Your task to perform on an android device: change the clock style Image 0: 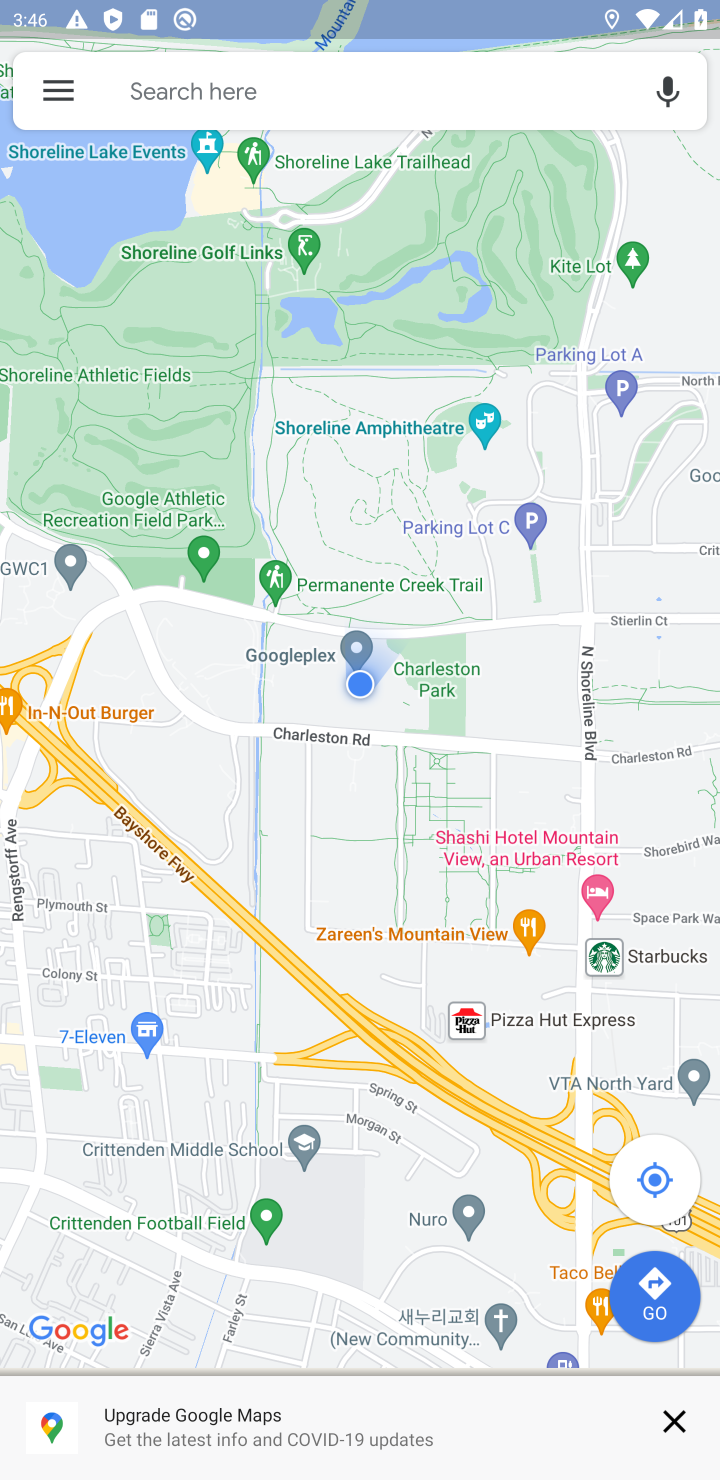
Step 0: press home button
Your task to perform on an android device: change the clock style Image 1: 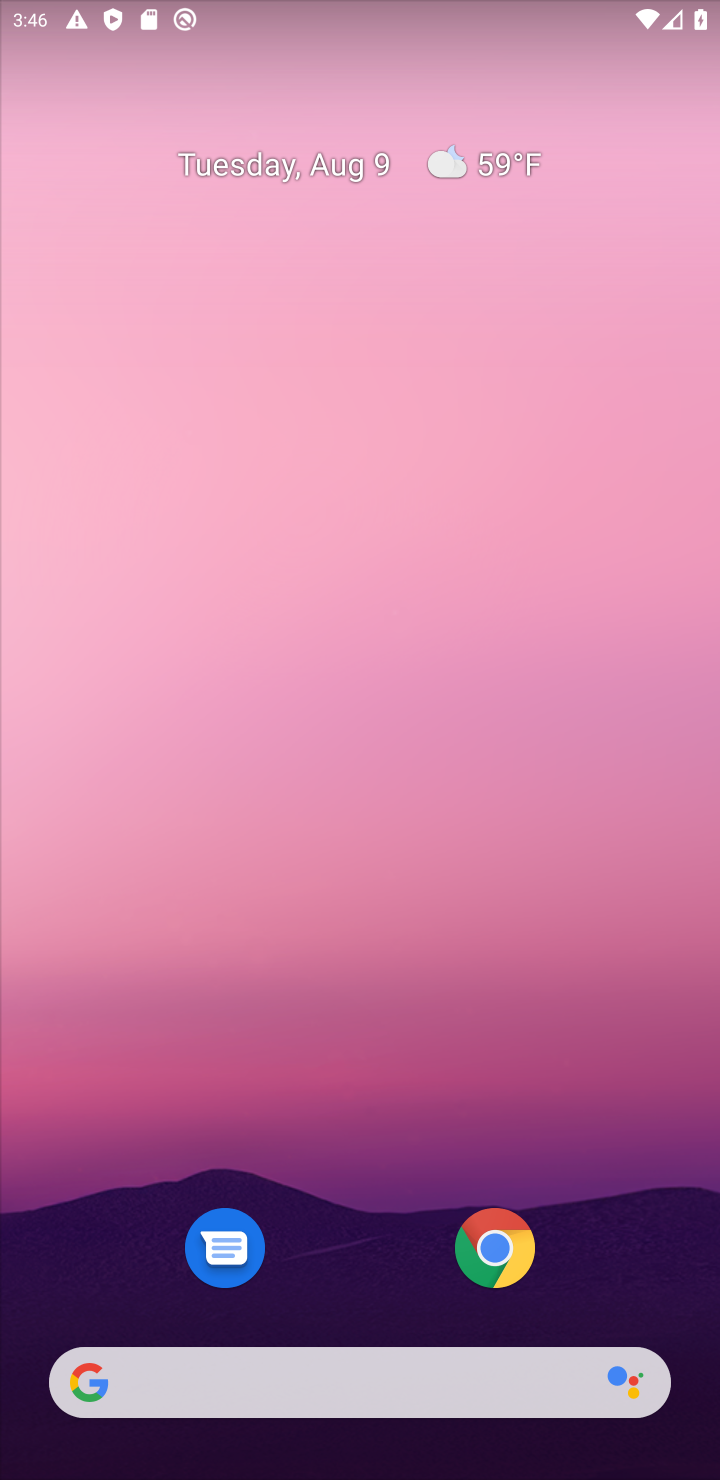
Step 1: drag from (375, 1110) to (200, 225)
Your task to perform on an android device: change the clock style Image 2: 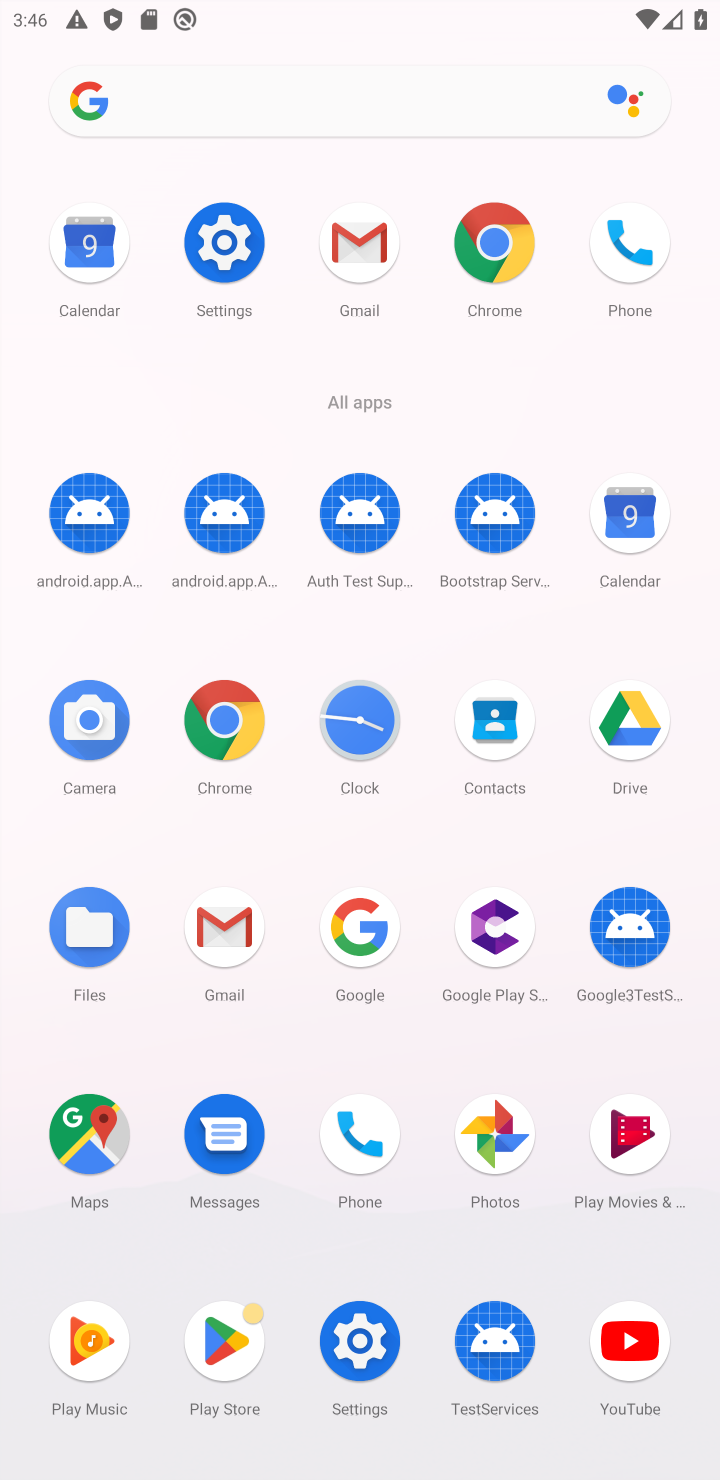
Step 2: click (364, 700)
Your task to perform on an android device: change the clock style Image 3: 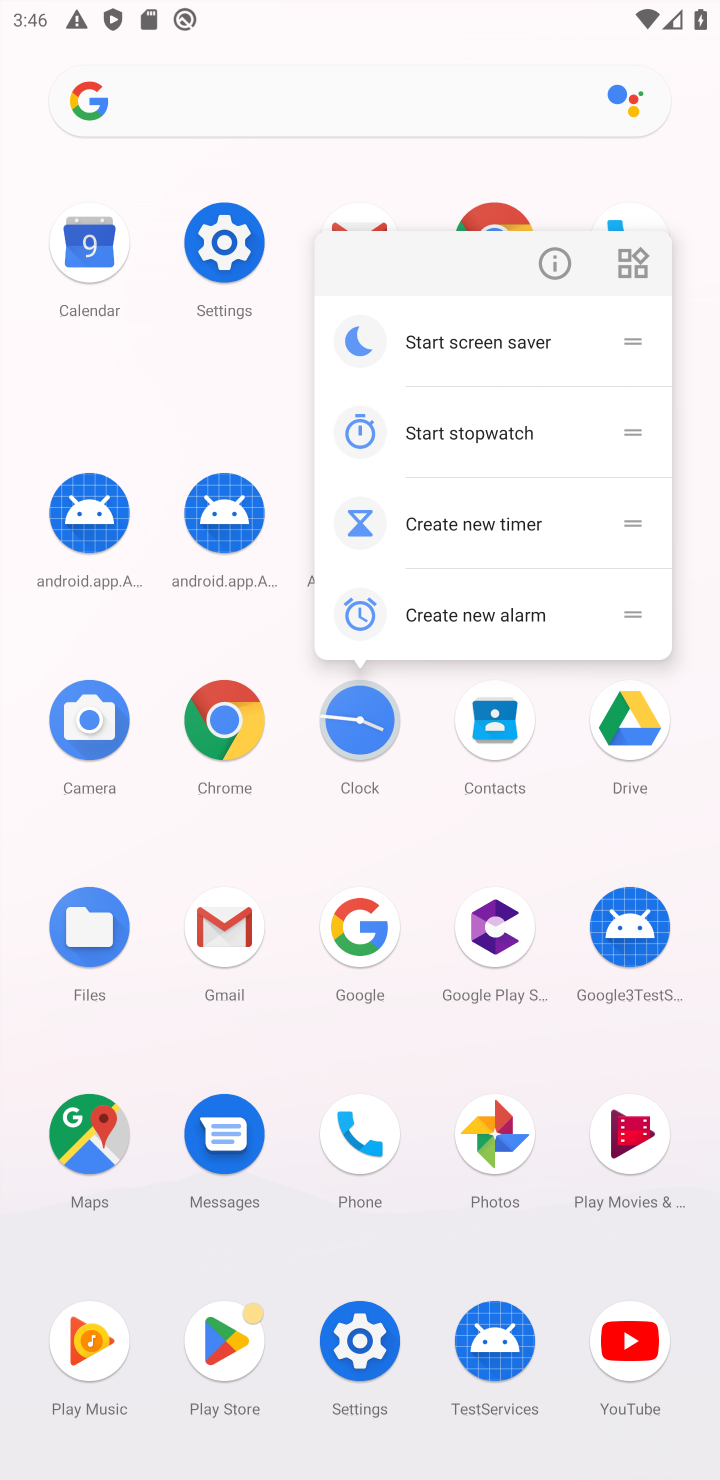
Step 3: click (357, 738)
Your task to perform on an android device: change the clock style Image 4: 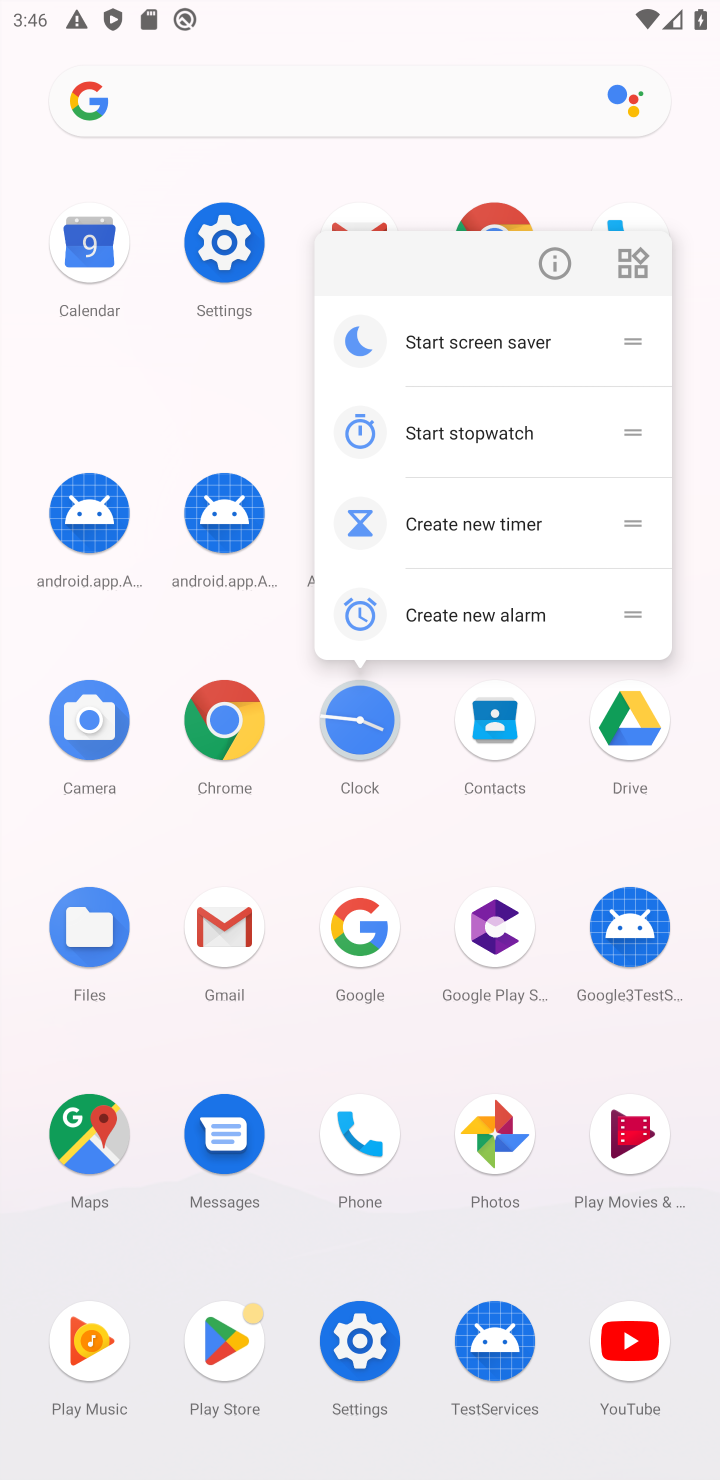
Step 4: click (372, 715)
Your task to perform on an android device: change the clock style Image 5: 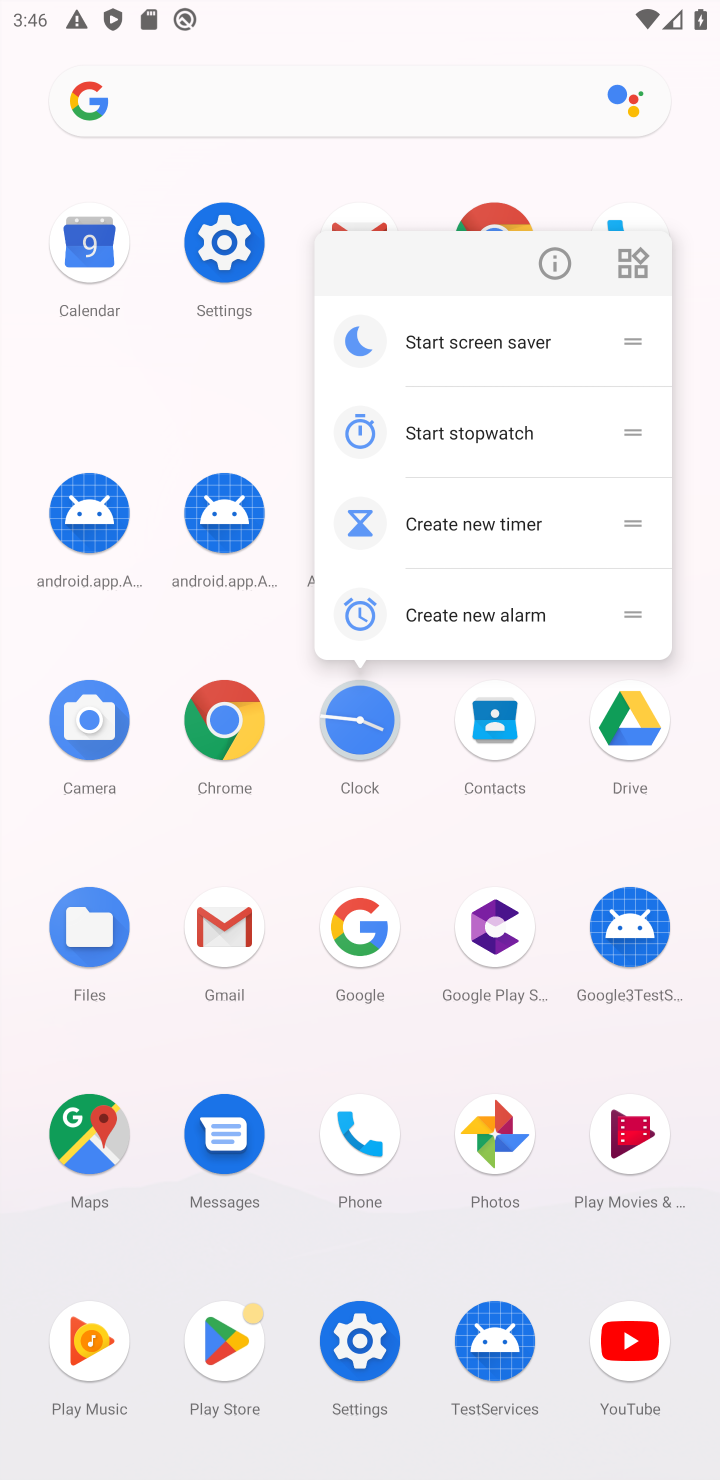
Step 5: click (412, 832)
Your task to perform on an android device: change the clock style Image 6: 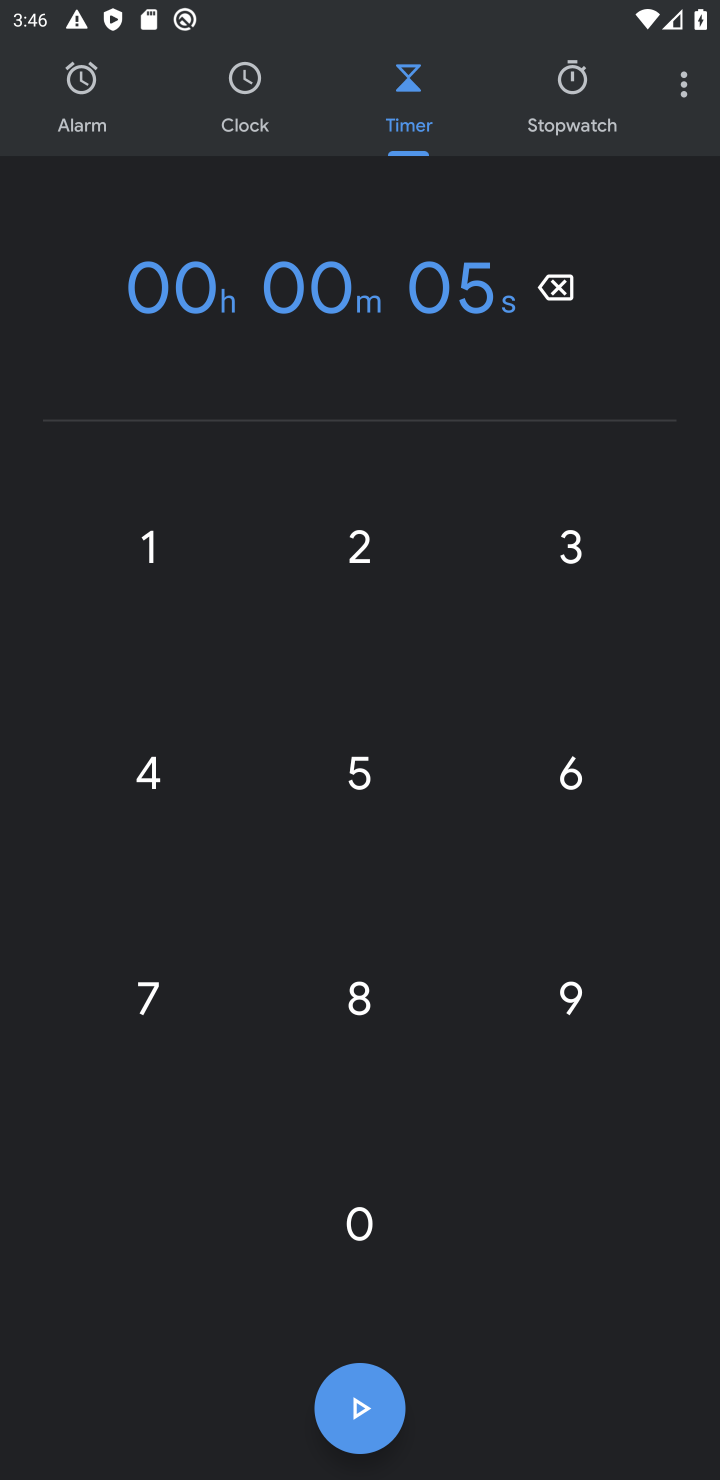
Step 6: click (672, 102)
Your task to perform on an android device: change the clock style Image 7: 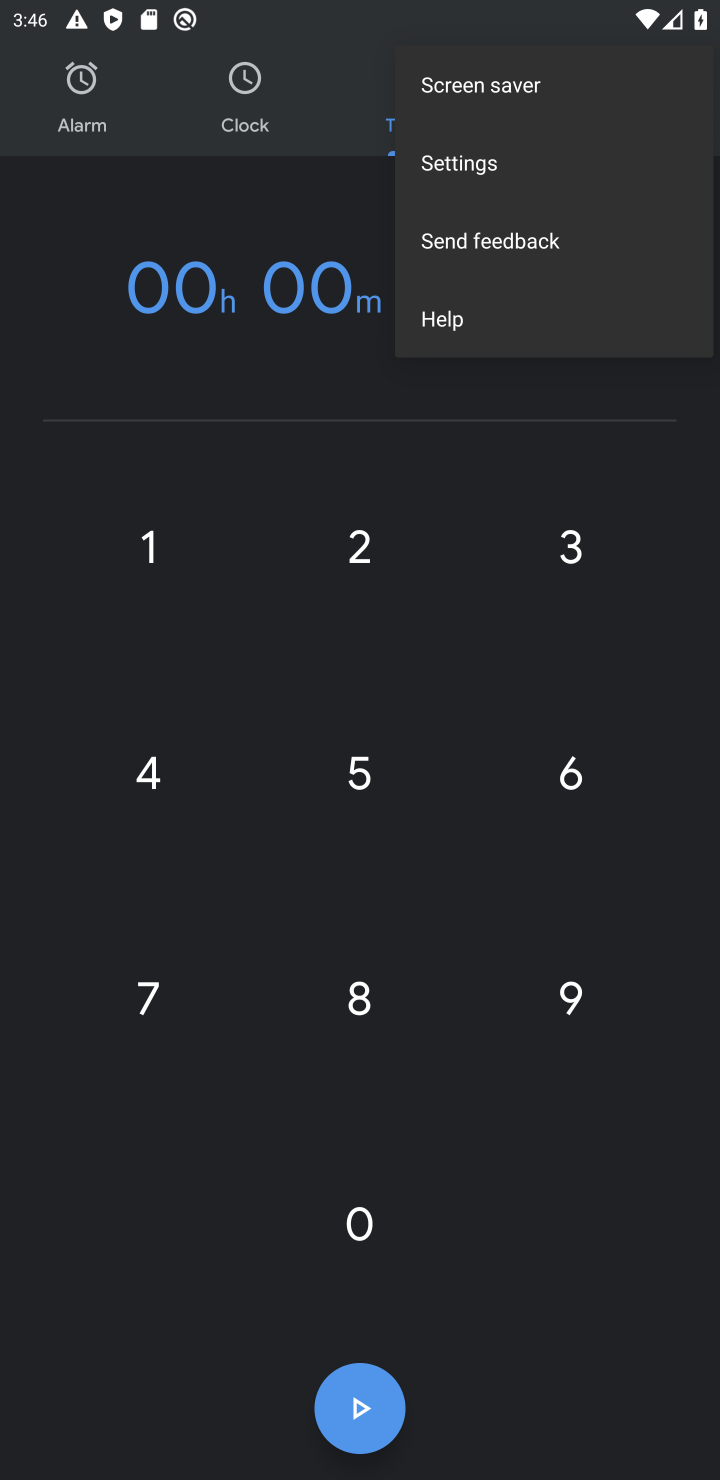
Step 7: click (511, 179)
Your task to perform on an android device: change the clock style Image 8: 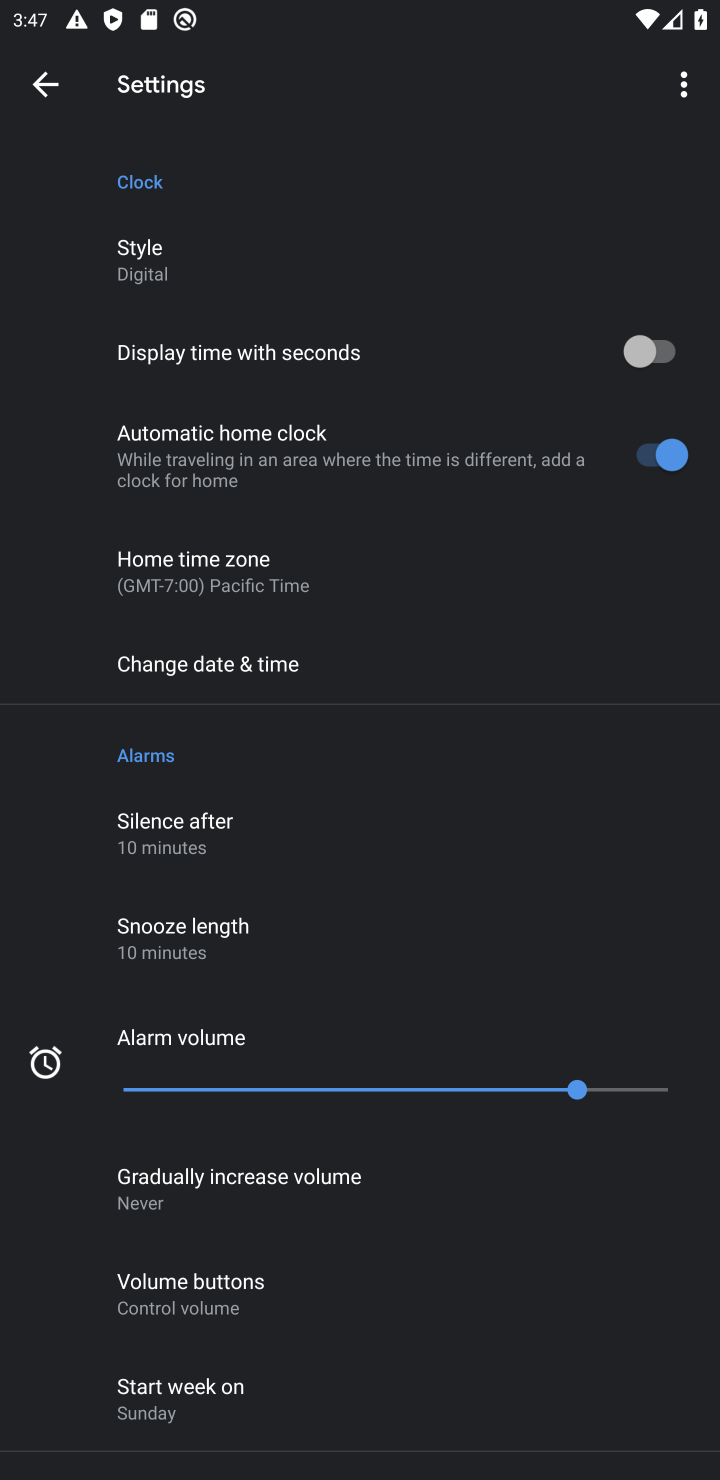
Step 8: click (167, 275)
Your task to perform on an android device: change the clock style Image 9: 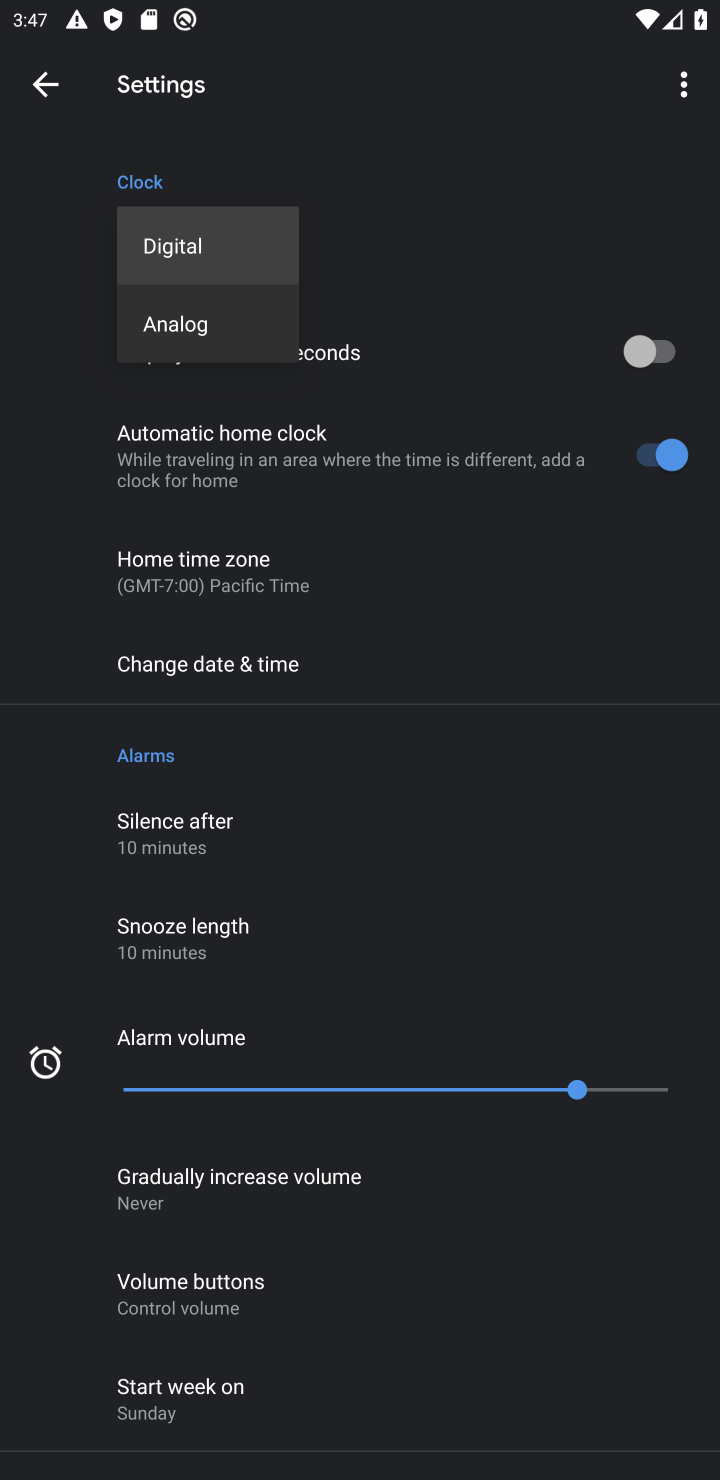
Step 9: click (175, 344)
Your task to perform on an android device: change the clock style Image 10: 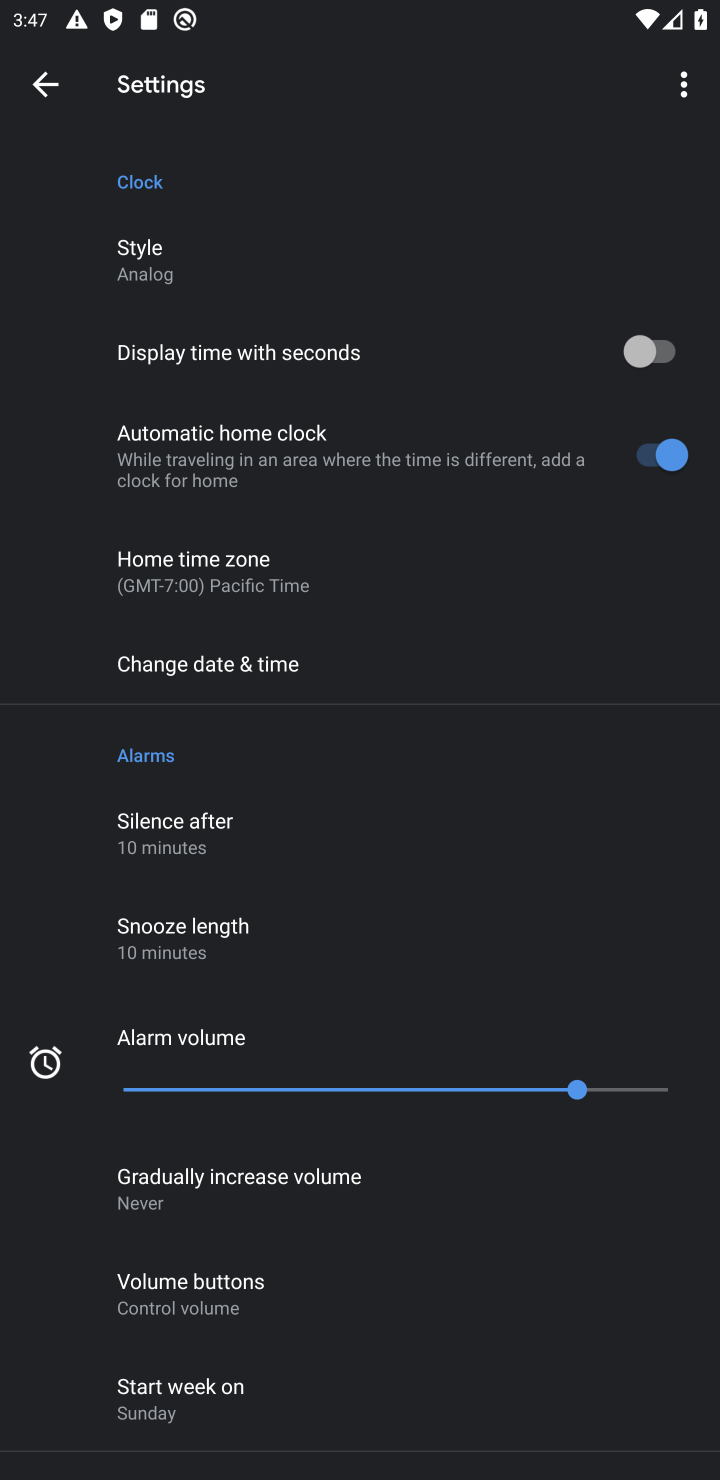
Step 10: task complete